Your task to perform on an android device: set the stopwatch Image 0: 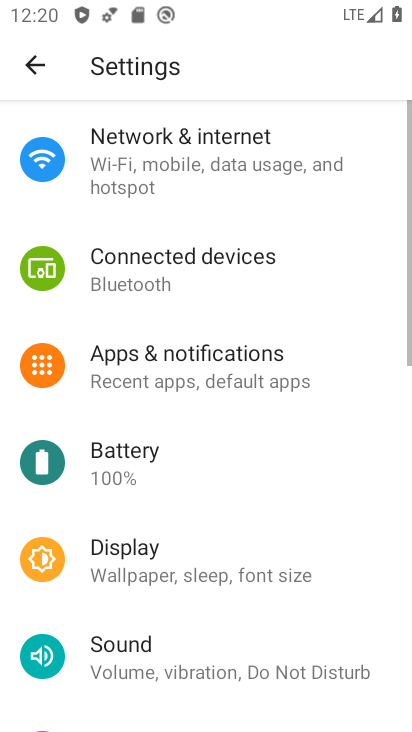
Step 0: press back button
Your task to perform on an android device: set the stopwatch Image 1: 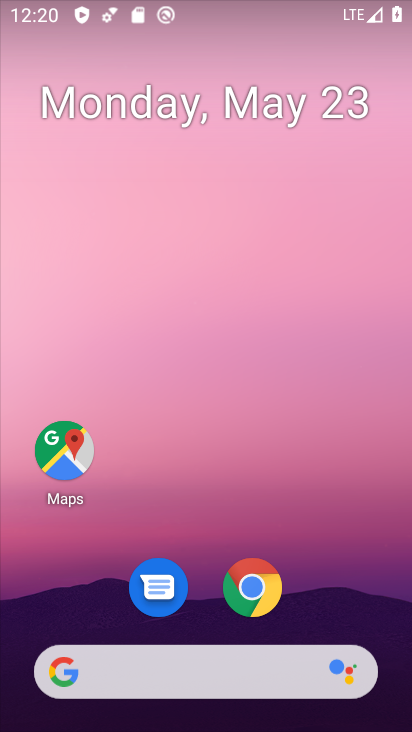
Step 1: drag from (205, 597) to (242, 51)
Your task to perform on an android device: set the stopwatch Image 2: 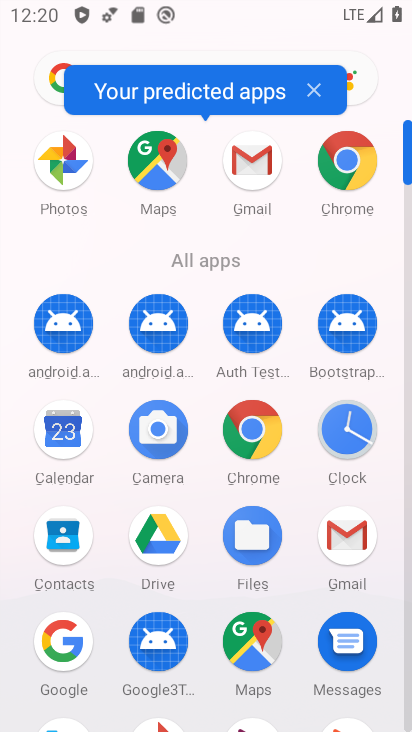
Step 2: click (334, 422)
Your task to perform on an android device: set the stopwatch Image 3: 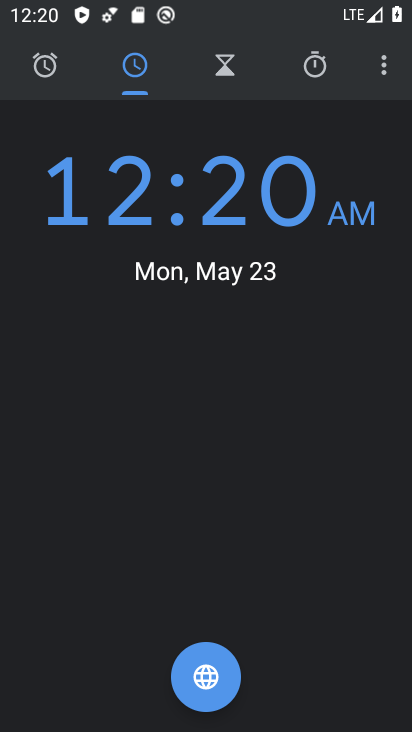
Step 3: click (323, 48)
Your task to perform on an android device: set the stopwatch Image 4: 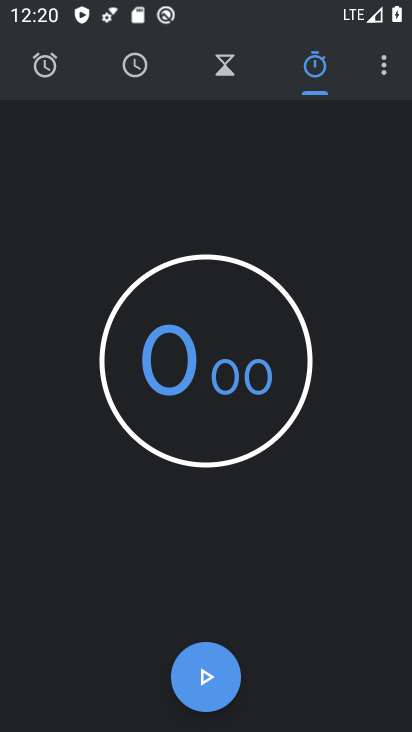
Step 4: click (225, 348)
Your task to perform on an android device: set the stopwatch Image 5: 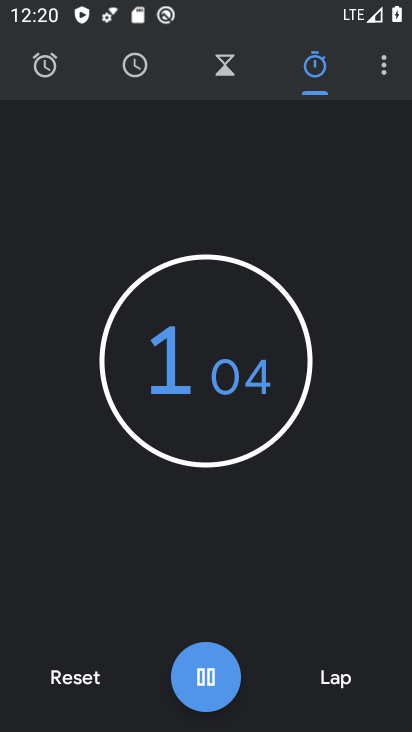
Step 5: click (222, 344)
Your task to perform on an android device: set the stopwatch Image 6: 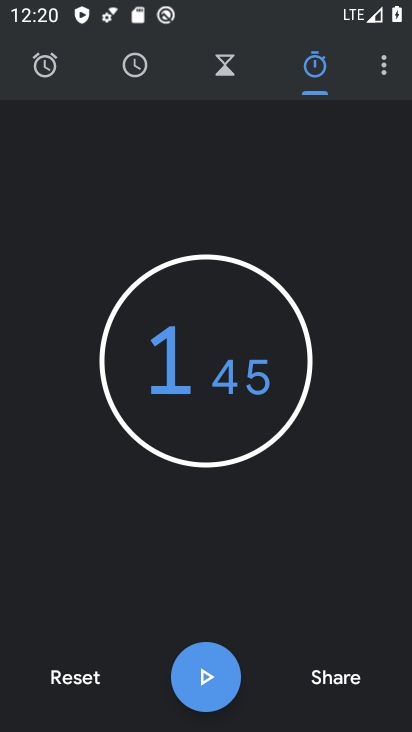
Step 6: task complete